Your task to perform on an android device: turn vacation reply on in the gmail app Image 0: 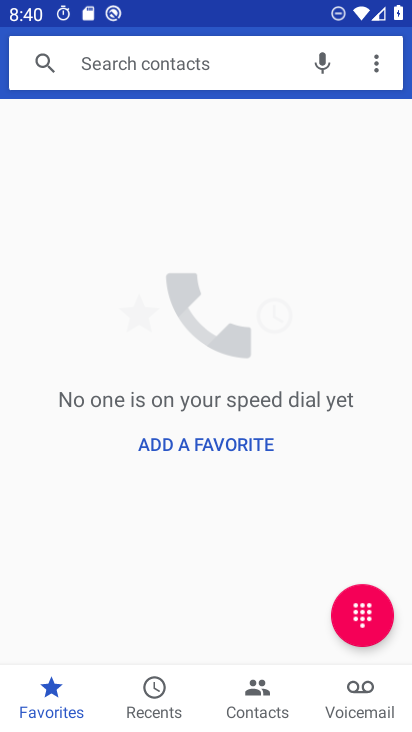
Step 0: press home button
Your task to perform on an android device: turn vacation reply on in the gmail app Image 1: 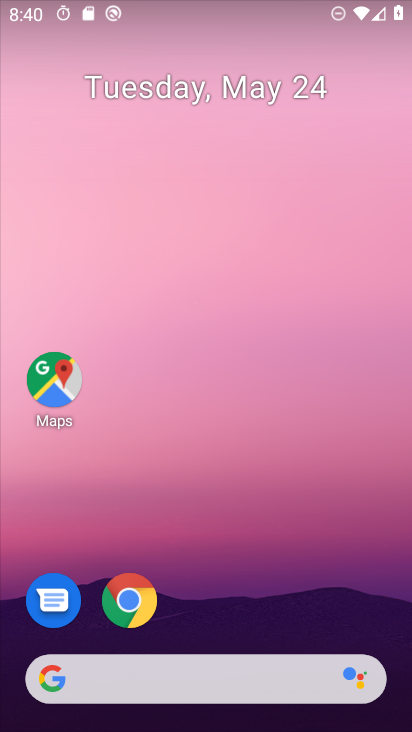
Step 1: drag from (226, 624) to (262, 64)
Your task to perform on an android device: turn vacation reply on in the gmail app Image 2: 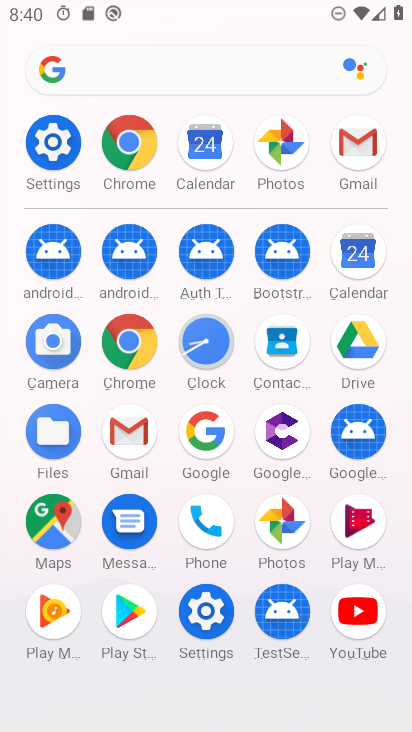
Step 2: click (136, 421)
Your task to perform on an android device: turn vacation reply on in the gmail app Image 3: 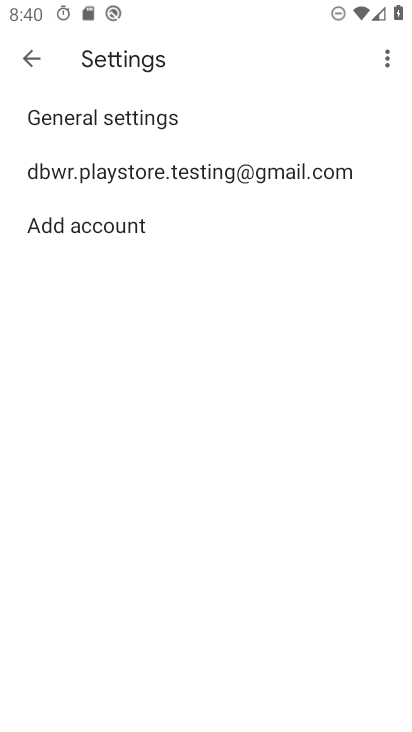
Step 3: click (94, 175)
Your task to perform on an android device: turn vacation reply on in the gmail app Image 4: 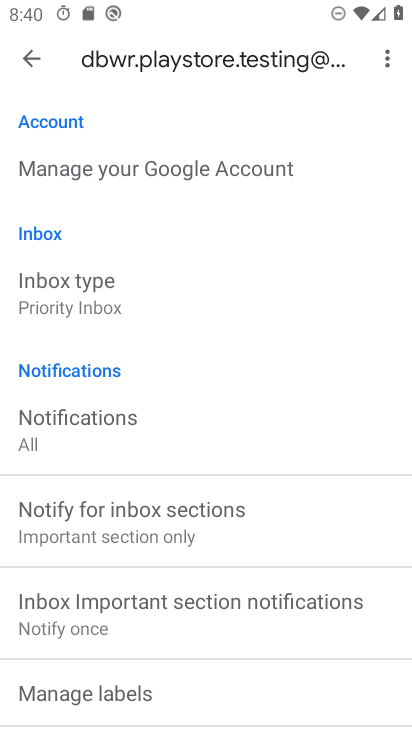
Step 4: drag from (198, 608) to (274, 50)
Your task to perform on an android device: turn vacation reply on in the gmail app Image 5: 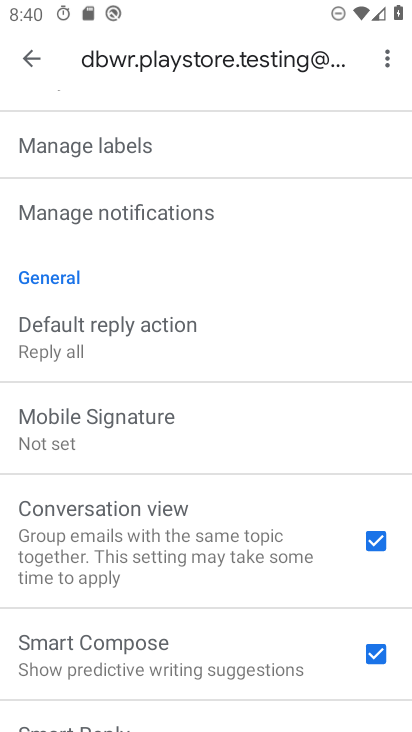
Step 5: drag from (168, 645) to (231, 208)
Your task to perform on an android device: turn vacation reply on in the gmail app Image 6: 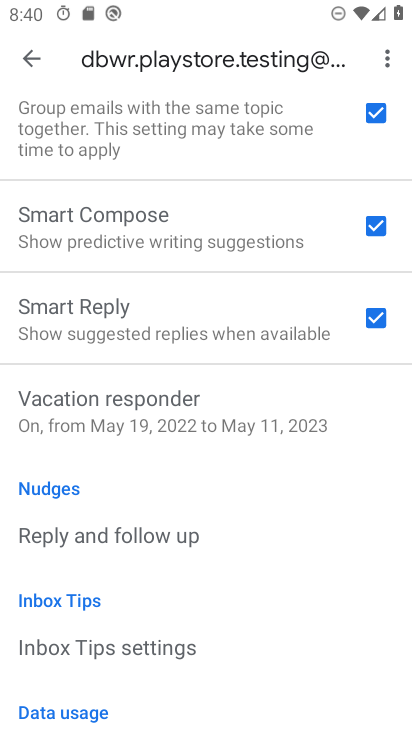
Step 6: click (181, 409)
Your task to perform on an android device: turn vacation reply on in the gmail app Image 7: 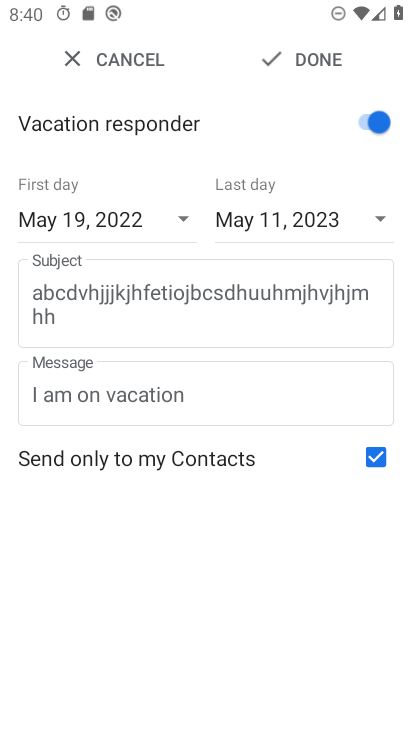
Step 7: task complete